Your task to perform on an android device: Go to Wikipedia Image 0: 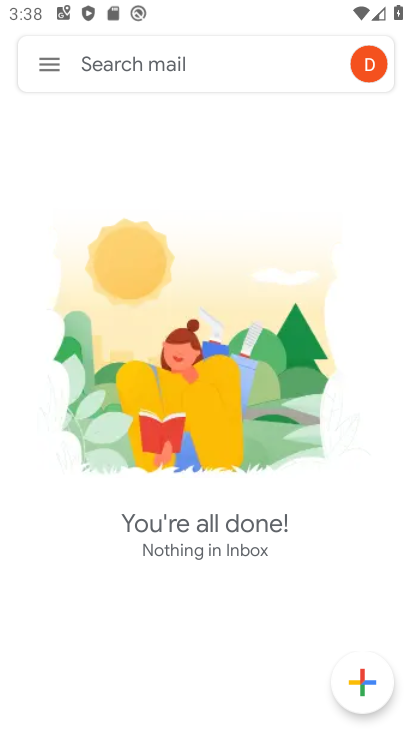
Step 0: press home button
Your task to perform on an android device: Go to Wikipedia Image 1: 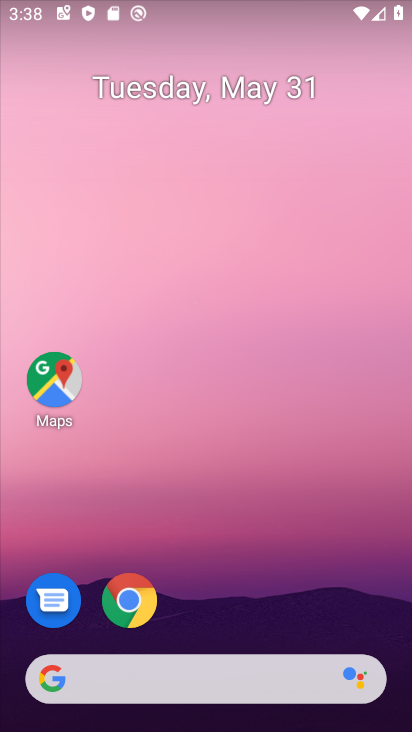
Step 1: click (126, 593)
Your task to perform on an android device: Go to Wikipedia Image 2: 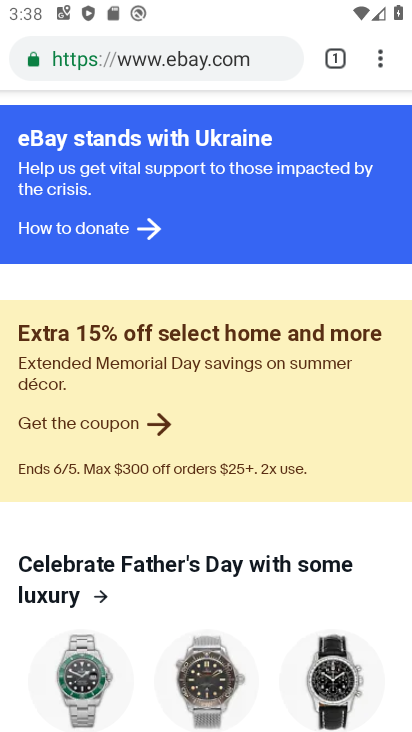
Step 2: click (340, 51)
Your task to perform on an android device: Go to Wikipedia Image 3: 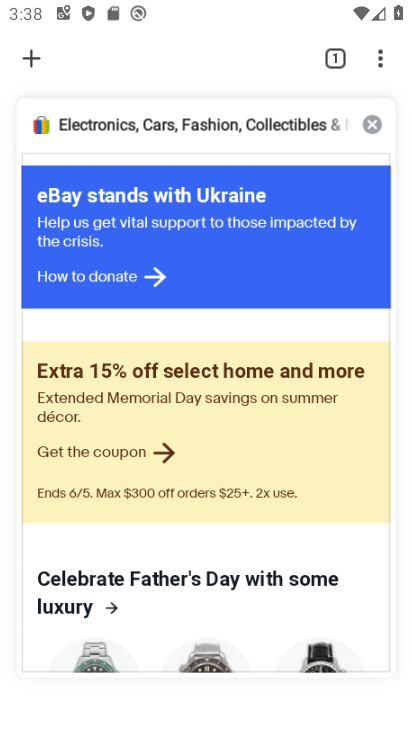
Step 3: click (375, 119)
Your task to perform on an android device: Go to Wikipedia Image 4: 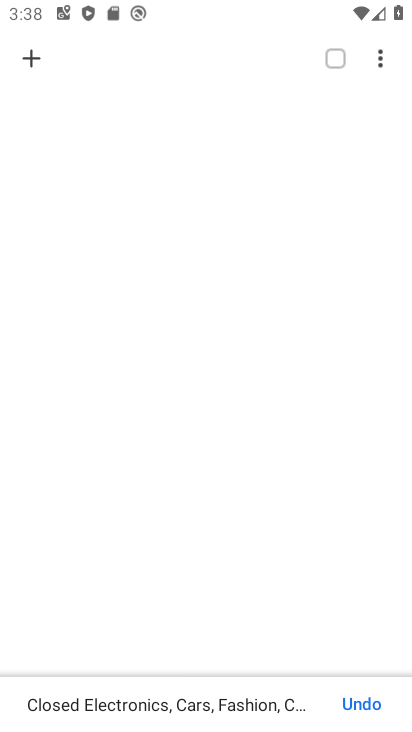
Step 4: click (38, 53)
Your task to perform on an android device: Go to Wikipedia Image 5: 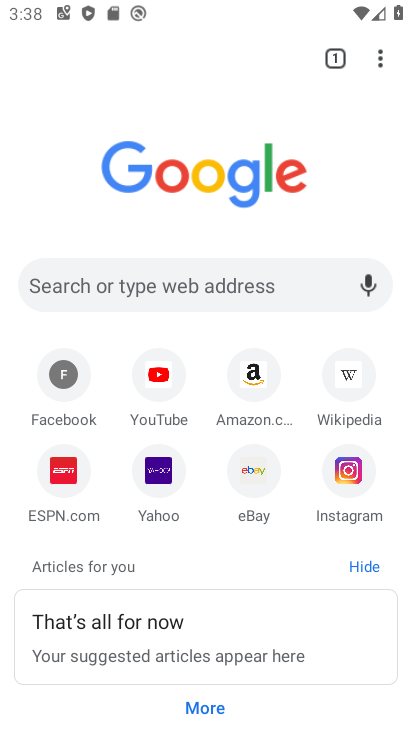
Step 5: click (350, 371)
Your task to perform on an android device: Go to Wikipedia Image 6: 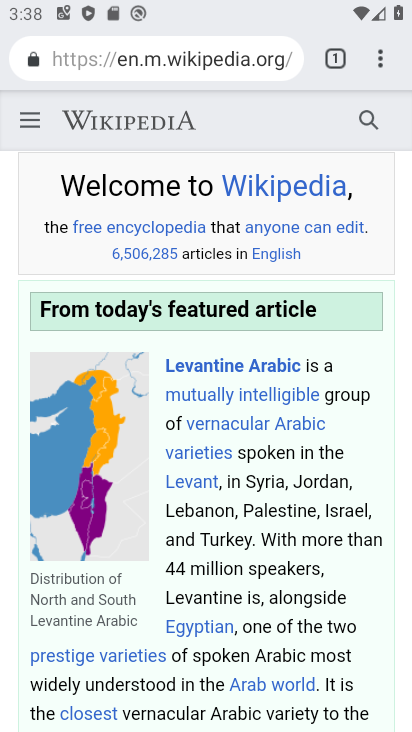
Step 6: task complete